Your task to perform on an android device: Show me popular videos on Youtube Image 0: 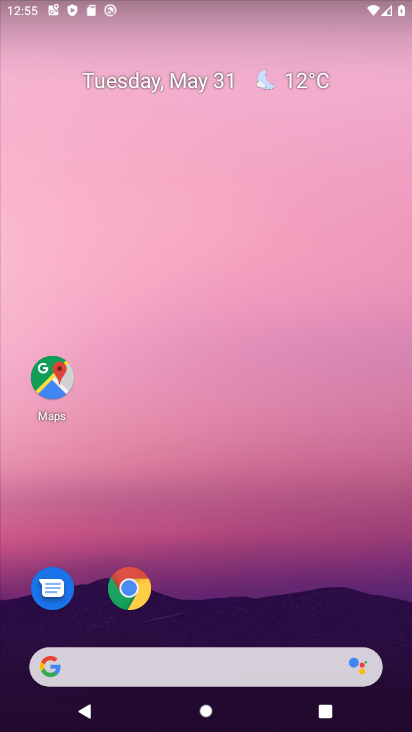
Step 0: drag from (219, 609) to (165, 170)
Your task to perform on an android device: Show me popular videos on Youtube Image 1: 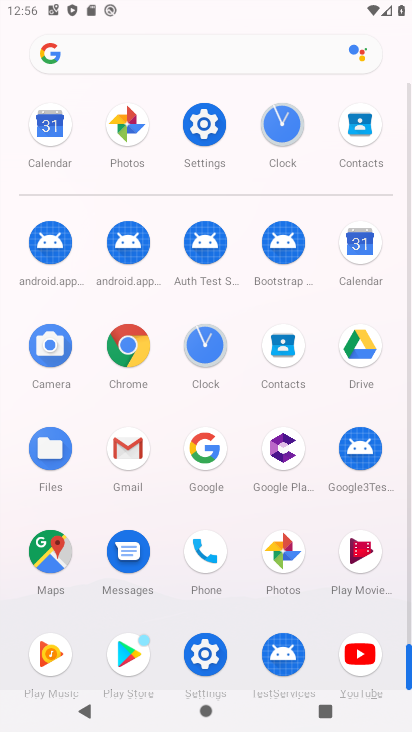
Step 1: click (355, 663)
Your task to perform on an android device: Show me popular videos on Youtube Image 2: 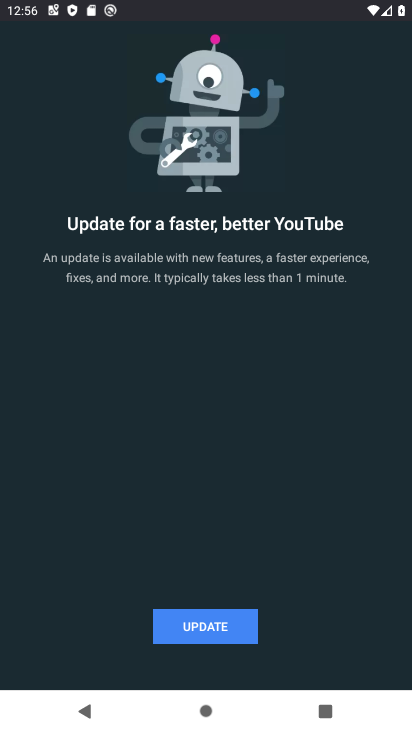
Step 2: click (204, 635)
Your task to perform on an android device: Show me popular videos on Youtube Image 3: 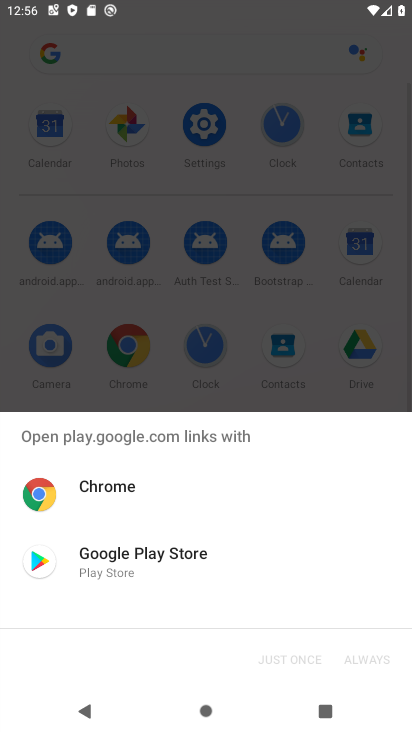
Step 3: drag from (163, 564) to (218, 564)
Your task to perform on an android device: Show me popular videos on Youtube Image 4: 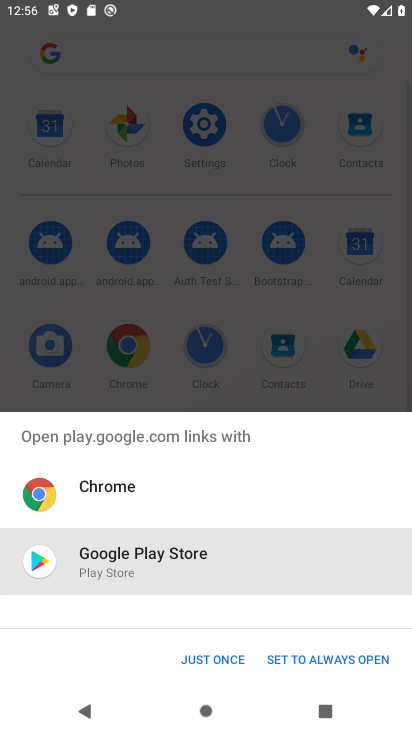
Step 4: click (313, 662)
Your task to perform on an android device: Show me popular videos on Youtube Image 5: 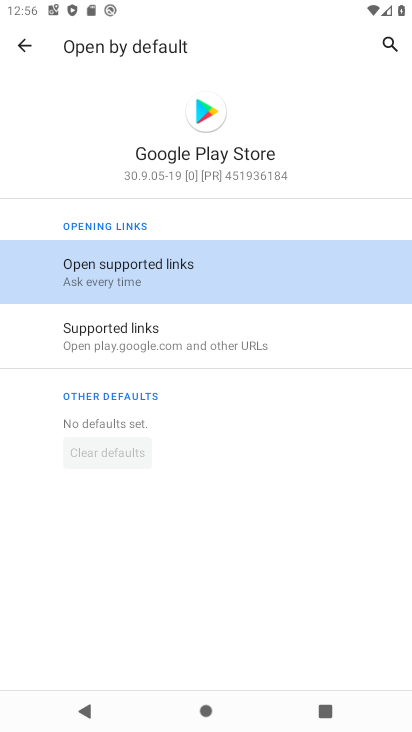
Step 5: click (186, 297)
Your task to perform on an android device: Show me popular videos on Youtube Image 6: 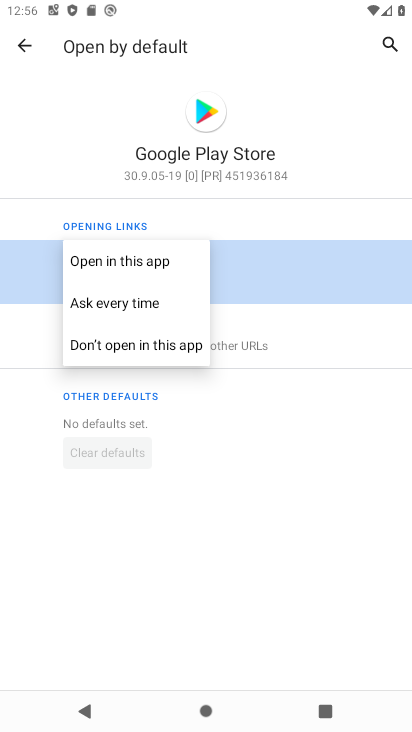
Step 6: click (135, 262)
Your task to perform on an android device: Show me popular videos on Youtube Image 7: 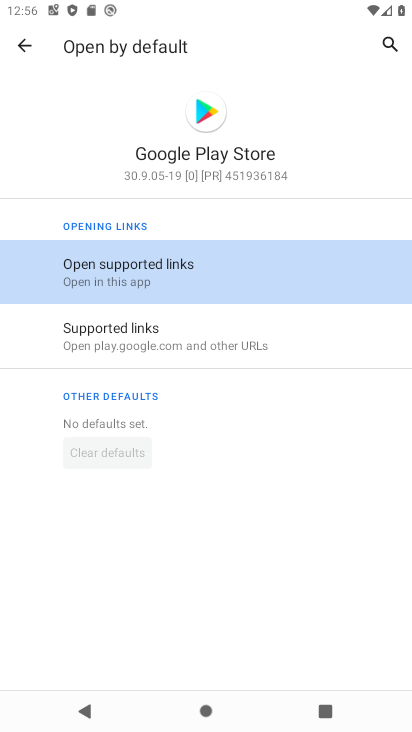
Step 7: click (14, 43)
Your task to perform on an android device: Show me popular videos on Youtube Image 8: 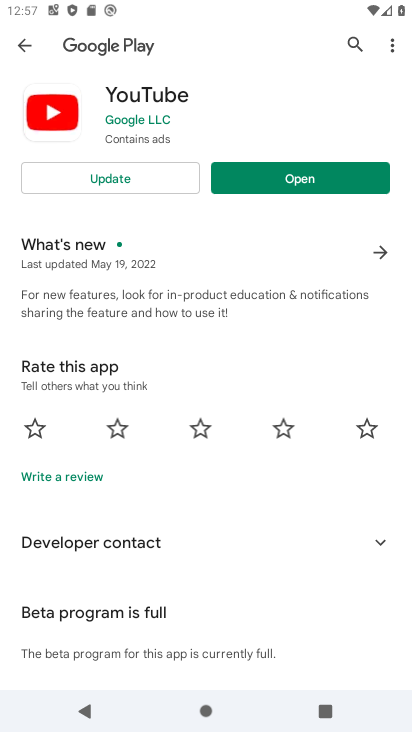
Step 8: click (117, 172)
Your task to perform on an android device: Show me popular videos on Youtube Image 9: 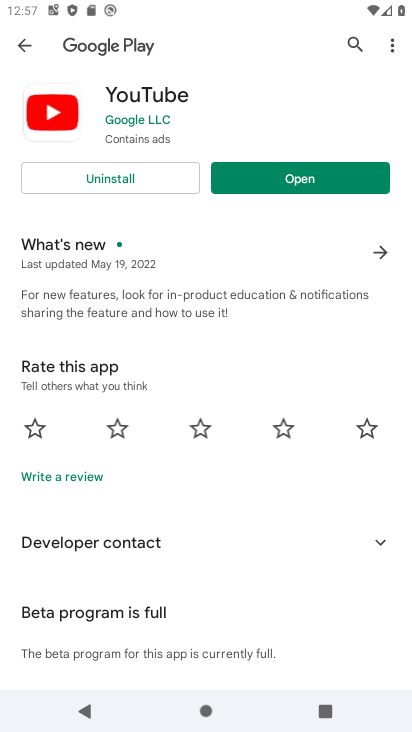
Step 9: click (301, 192)
Your task to perform on an android device: Show me popular videos on Youtube Image 10: 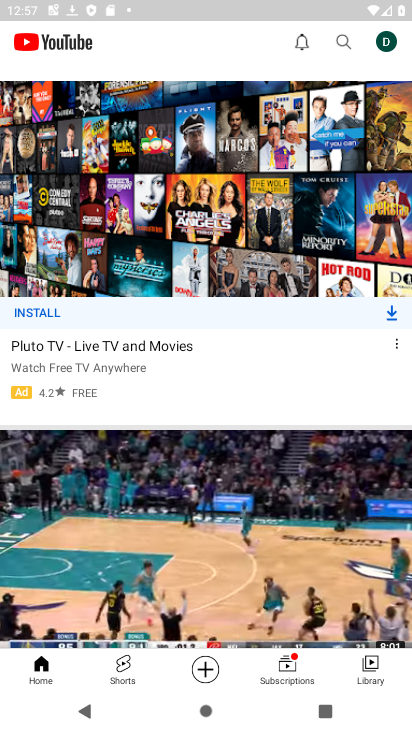
Step 10: task complete